Your task to perform on an android device: turn off sleep mode Image 0: 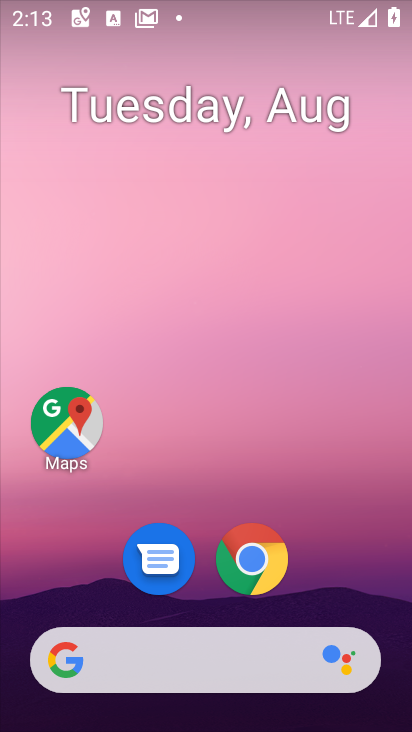
Step 0: drag from (212, 503) to (175, 181)
Your task to perform on an android device: turn off sleep mode Image 1: 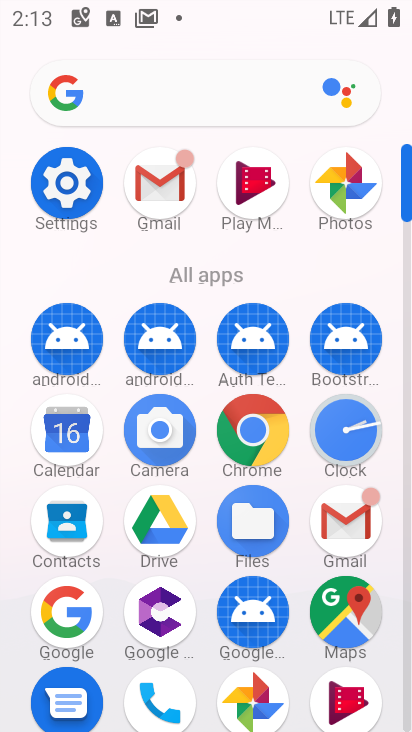
Step 1: click (38, 184)
Your task to perform on an android device: turn off sleep mode Image 2: 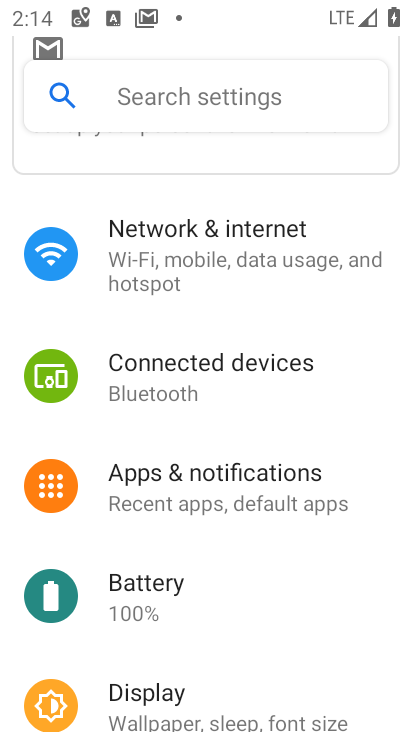
Step 2: drag from (205, 601) to (166, 311)
Your task to perform on an android device: turn off sleep mode Image 3: 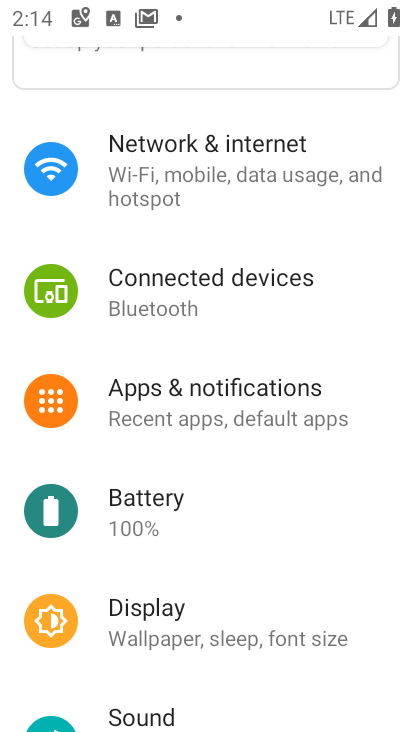
Step 3: click (180, 613)
Your task to perform on an android device: turn off sleep mode Image 4: 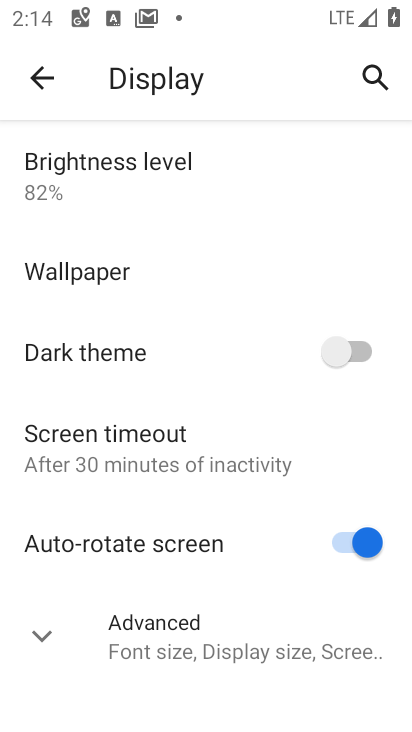
Step 4: click (174, 411)
Your task to perform on an android device: turn off sleep mode Image 5: 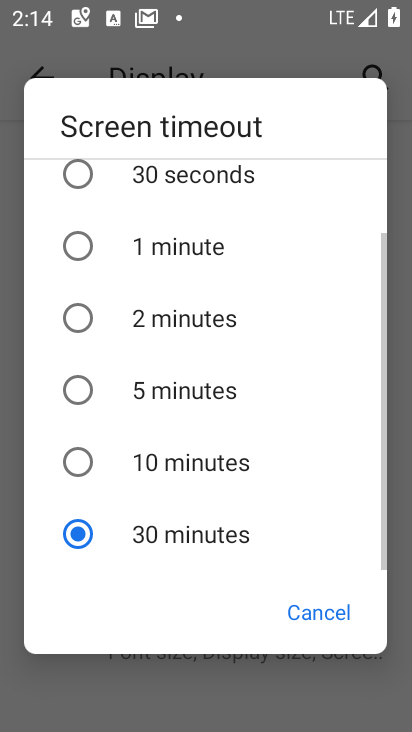
Step 5: click (172, 251)
Your task to perform on an android device: turn off sleep mode Image 6: 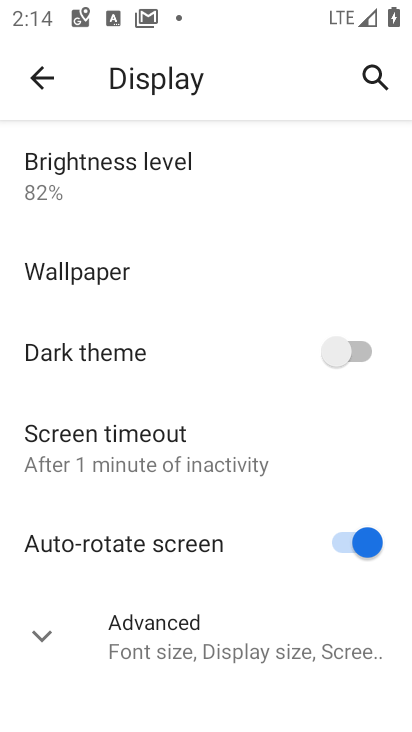
Step 6: task complete